Your task to perform on an android device: turn off picture-in-picture Image 0: 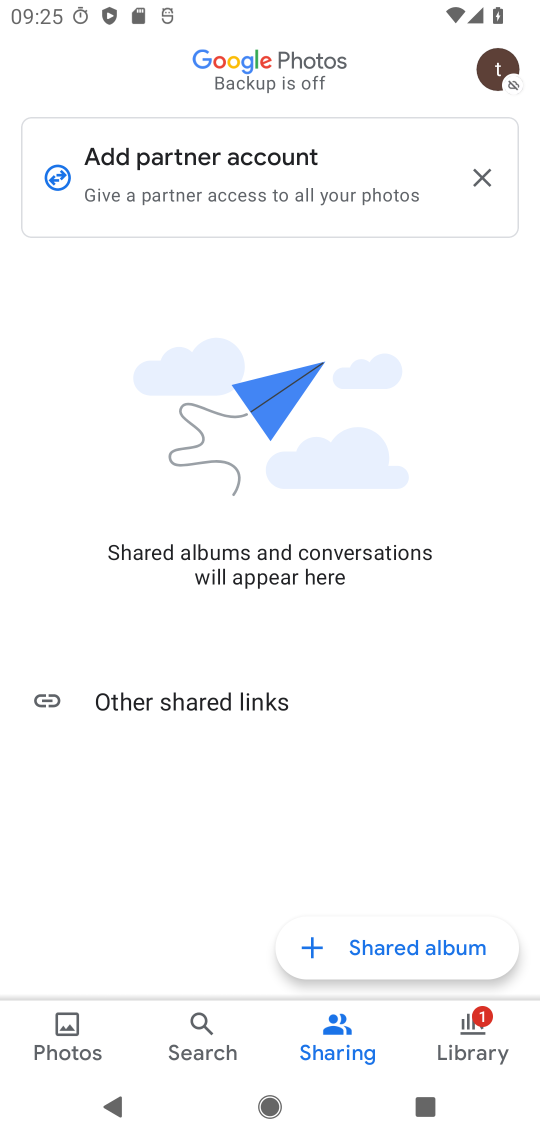
Step 0: press home button
Your task to perform on an android device: turn off picture-in-picture Image 1: 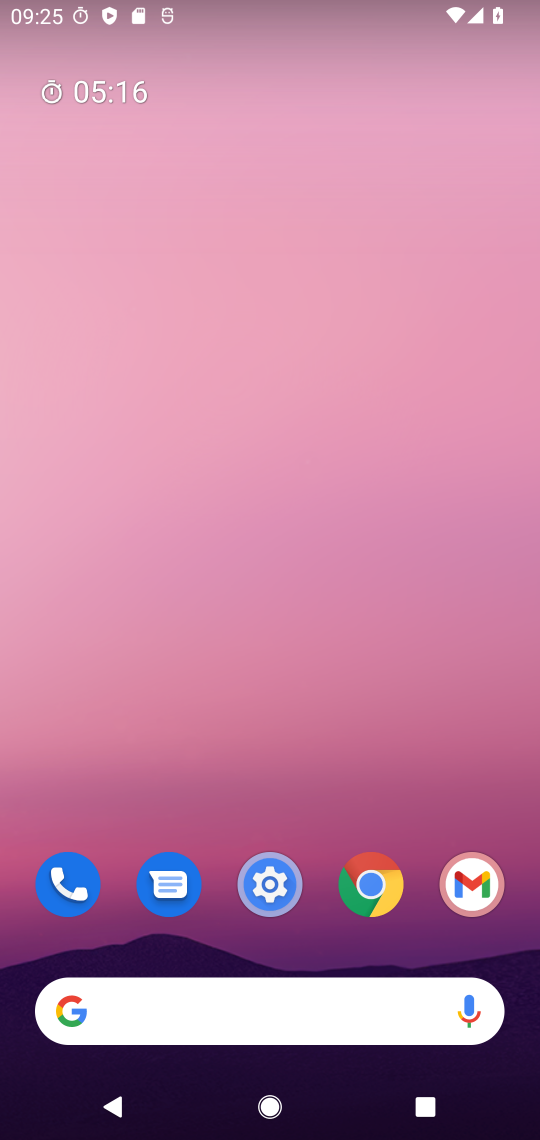
Step 1: click (344, 892)
Your task to perform on an android device: turn off picture-in-picture Image 2: 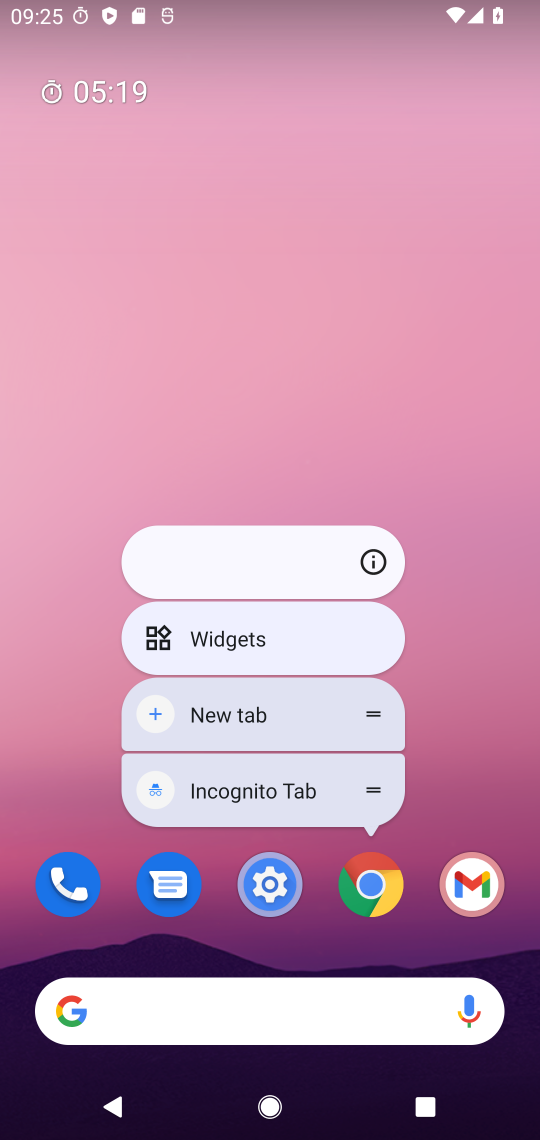
Step 2: click (365, 567)
Your task to perform on an android device: turn off picture-in-picture Image 3: 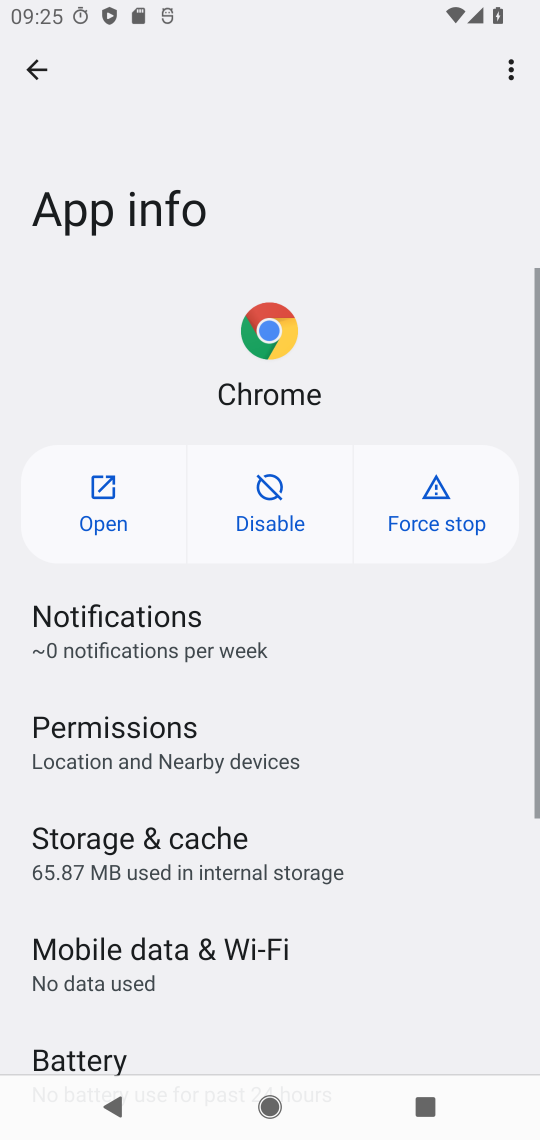
Step 3: drag from (254, 958) to (296, 351)
Your task to perform on an android device: turn off picture-in-picture Image 4: 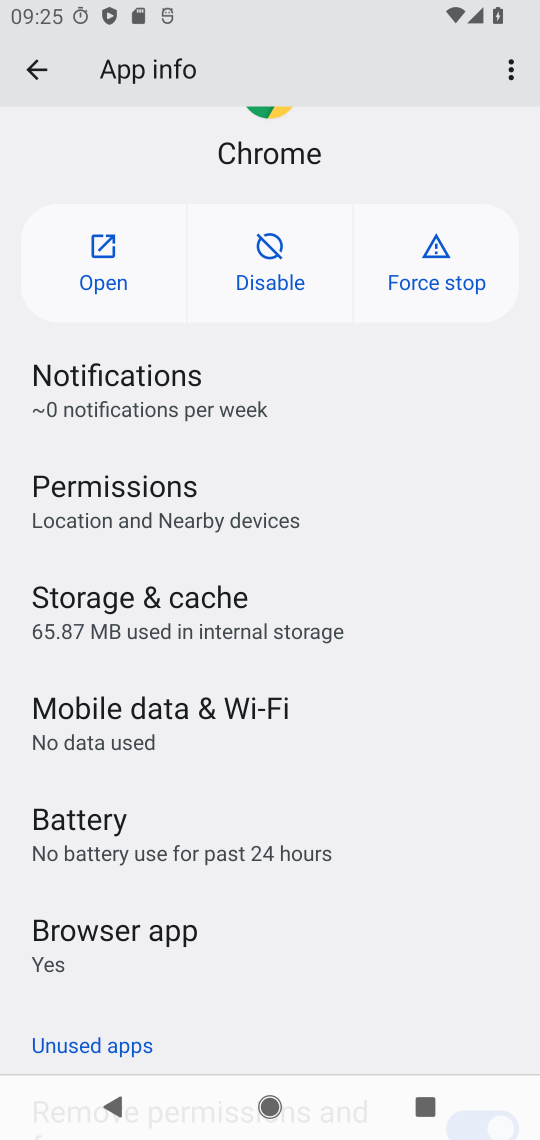
Step 4: drag from (292, 854) to (249, 368)
Your task to perform on an android device: turn off picture-in-picture Image 5: 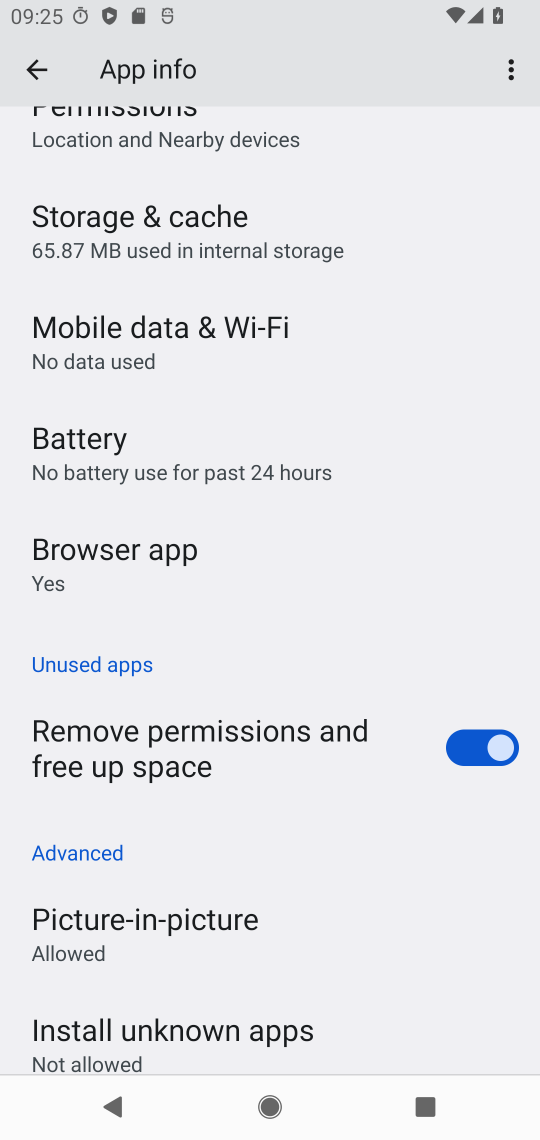
Step 5: drag from (249, 956) to (242, 449)
Your task to perform on an android device: turn off picture-in-picture Image 6: 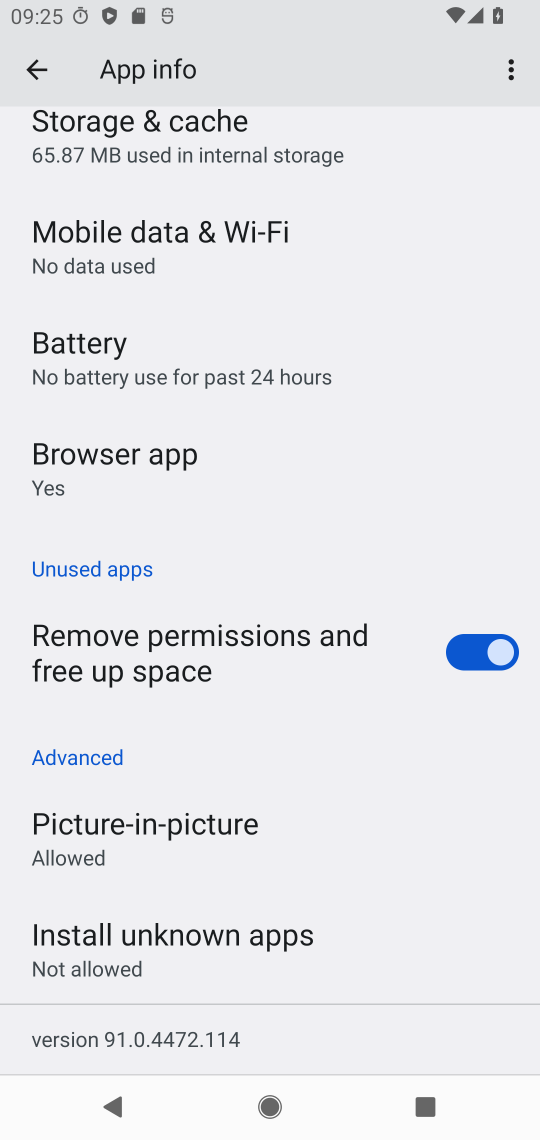
Step 6: click (153, 850)
Your task to perform on an android device: turn off picture-in-picture Image 7: 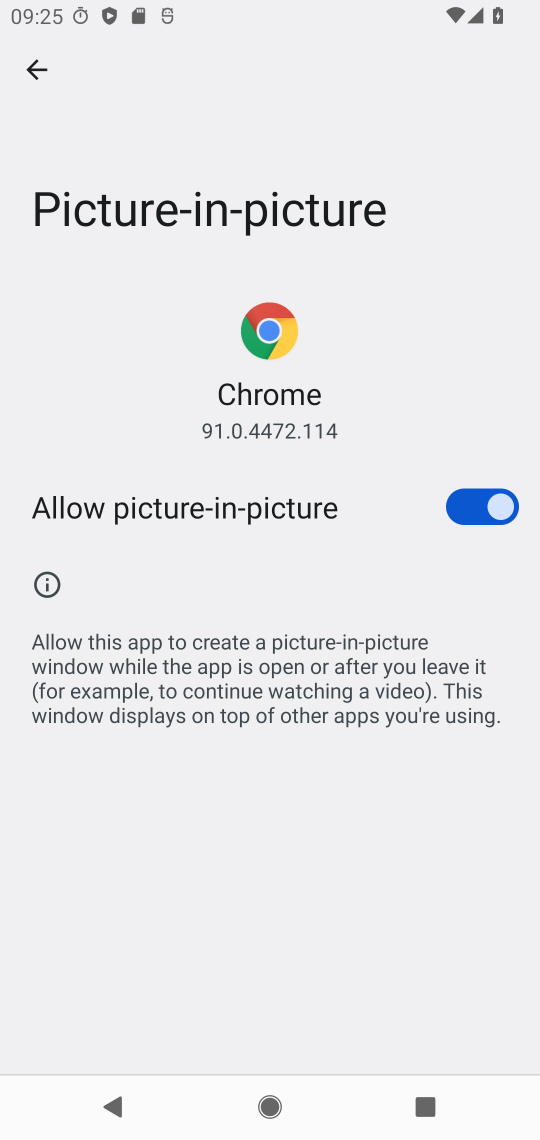
Step 7: click (432, 520)
Your task to perform on an android device: turn off picture-in-picture Image 8: 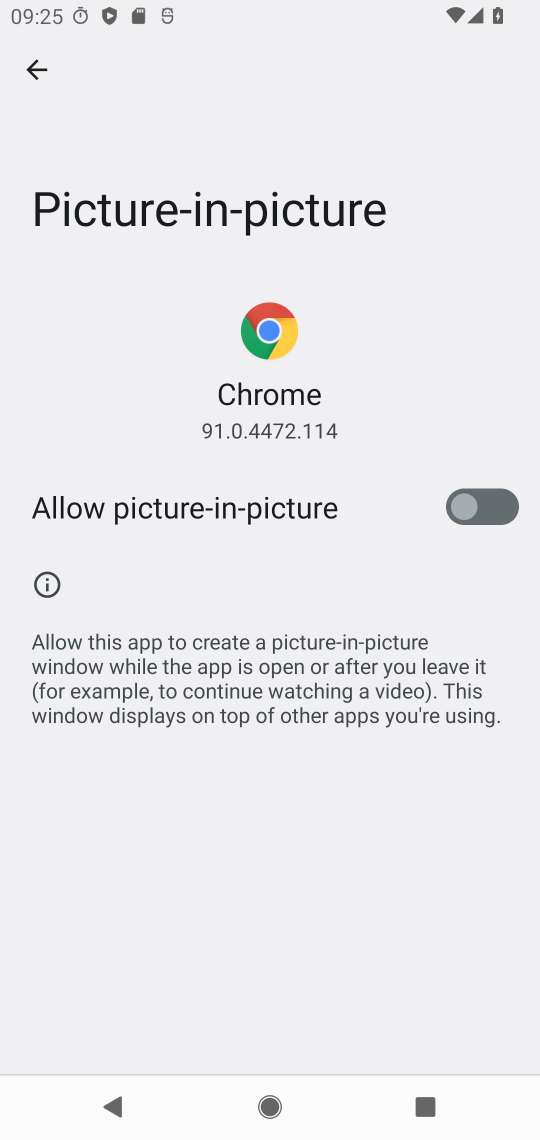
Step 8: task complete